Your task to perform on an android device: Go to Yahoo.com Image 0: 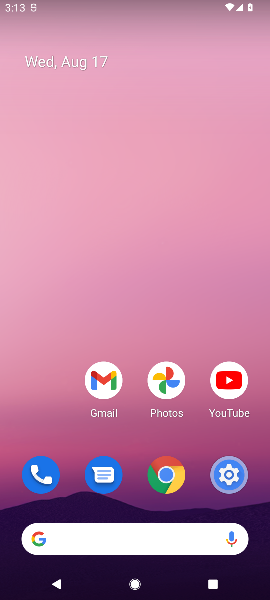
Step 0: click (158, 475)
Your task to perform on an android device: Go to Yahoo.com Image 1: 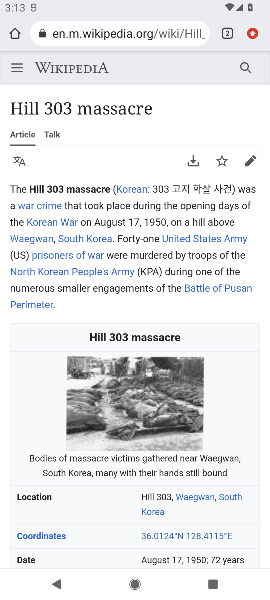
Step 1: click (223, 34)
Your task to perform on an android device: Go to Yahoo.com Image 2: 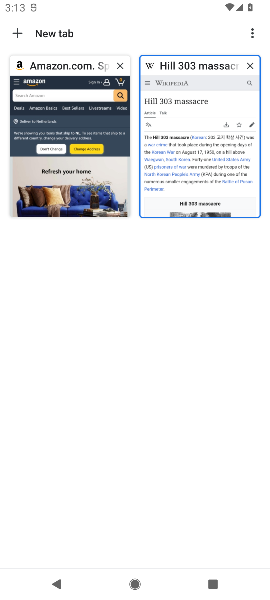
Step 2: click (15, 32)
Your task to perform on an android device: Go to Yahoo.com Image 3: 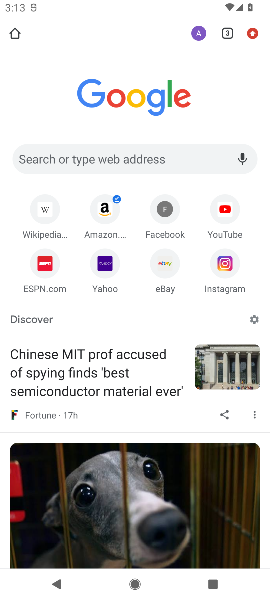
Step 3: click (103, 254)
Your task to perform on an android device: Go to Yahoo.com Image 4: 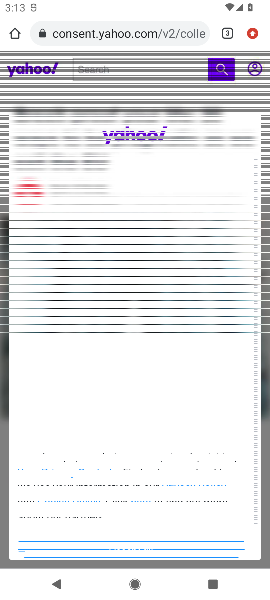
Step 4: click (103, 254)
Your task to perform on an android device: Go to Yahoo.com Image 5: 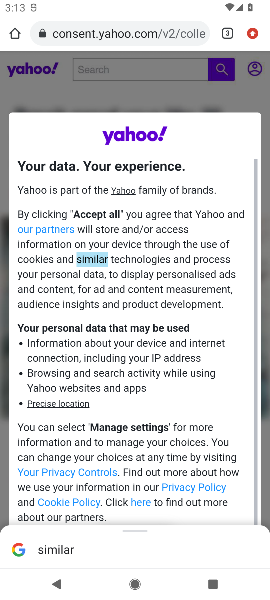
Step 5: task complete